Your task to perform on an android device: Open my contact list Image 0: 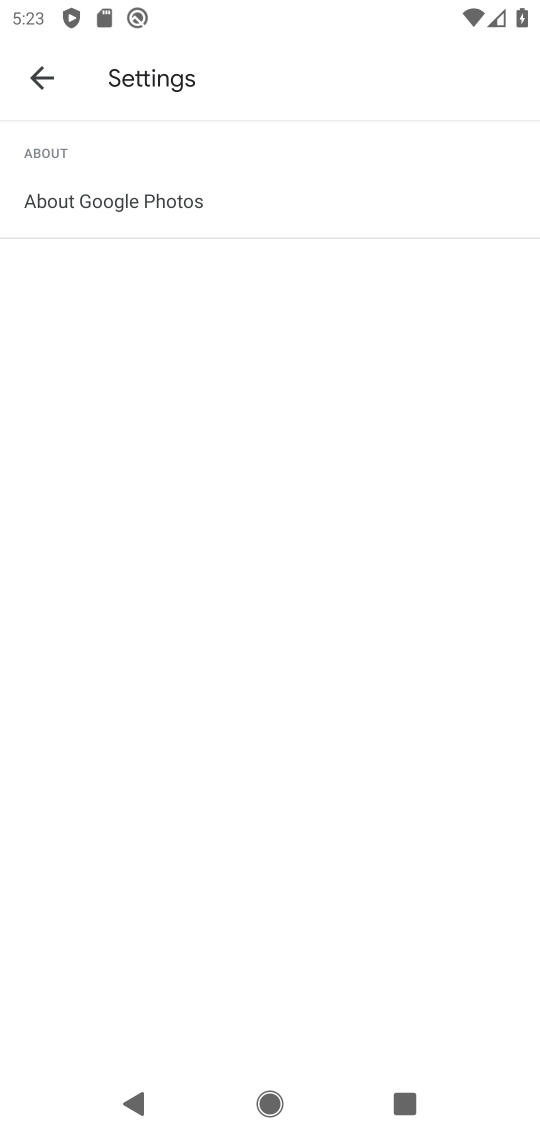
Step 0: press back button
Your task to perform on an android device: Open my contact list Image 1: 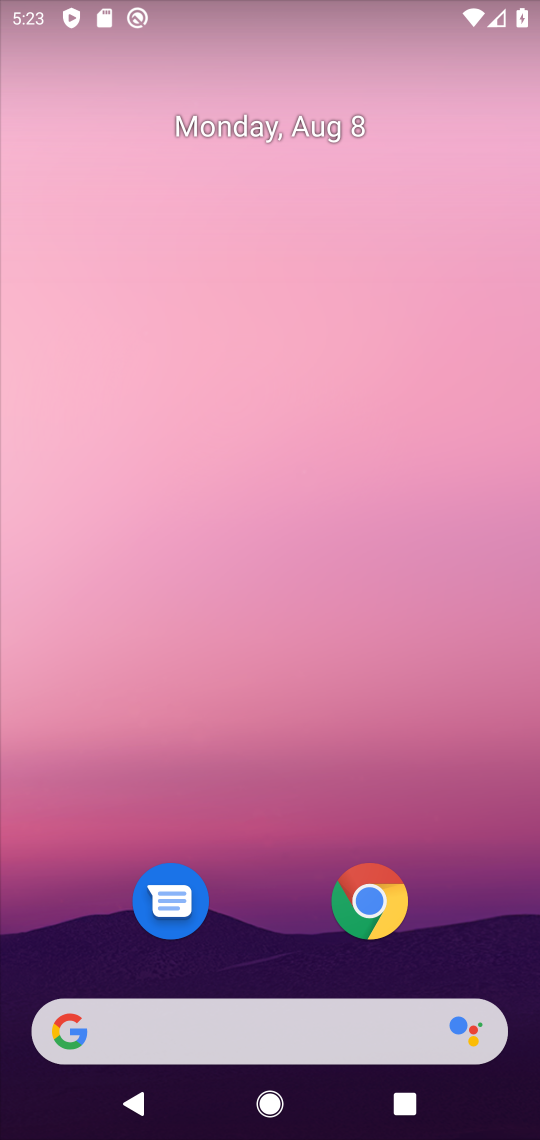
Step 1: drag from (491, 926) to (381, 15)
Your task to perform on an android device: Open my contact list Image 2: 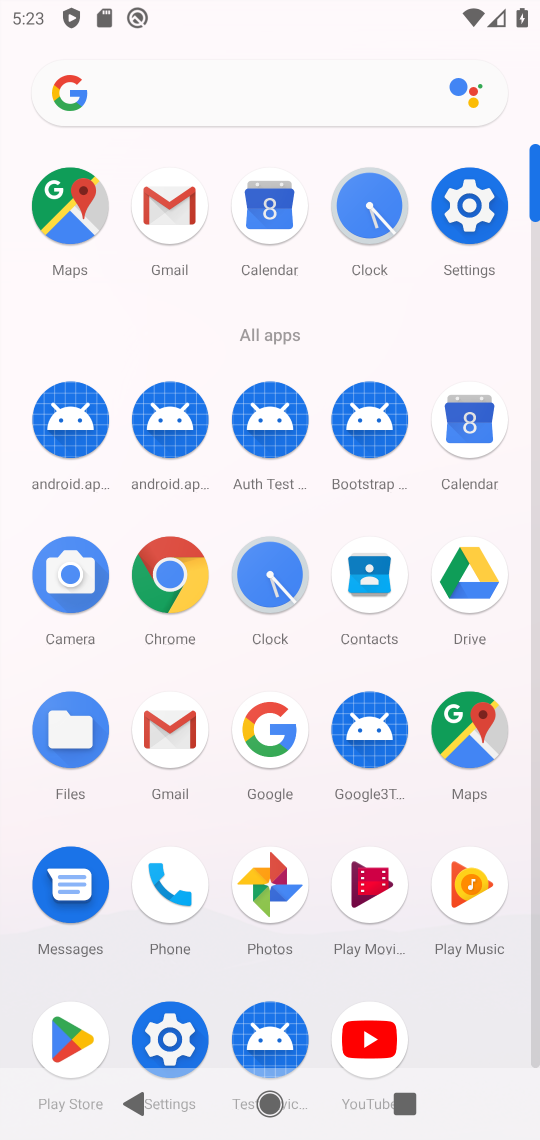
Step 2: click (370, 596)
Your task to perform on an android device: Open my contact list Image 3: 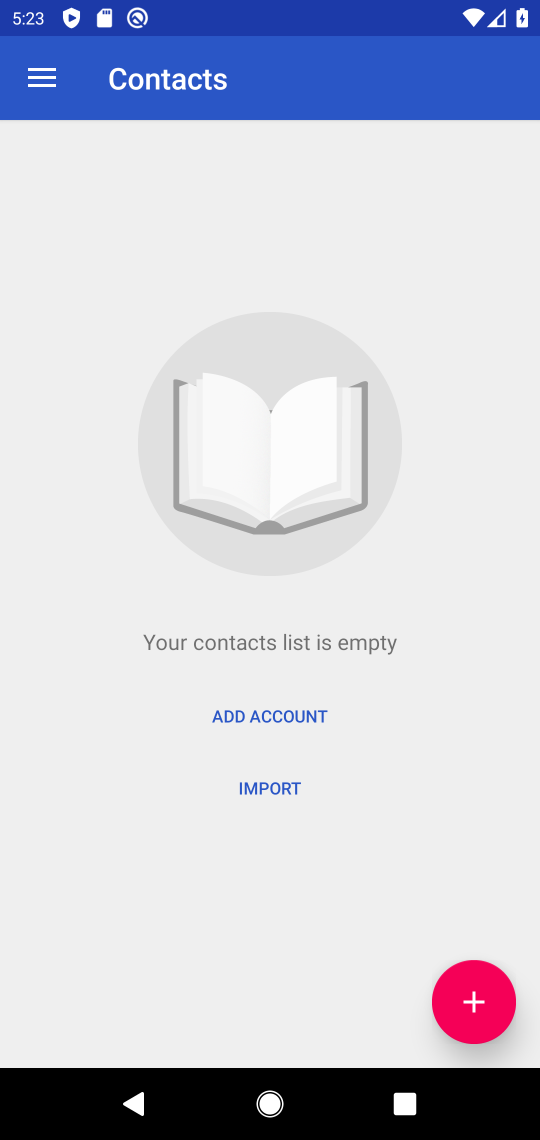
Step 3: task complete